Your task to perform on an android device: Open Amazon Image 0: 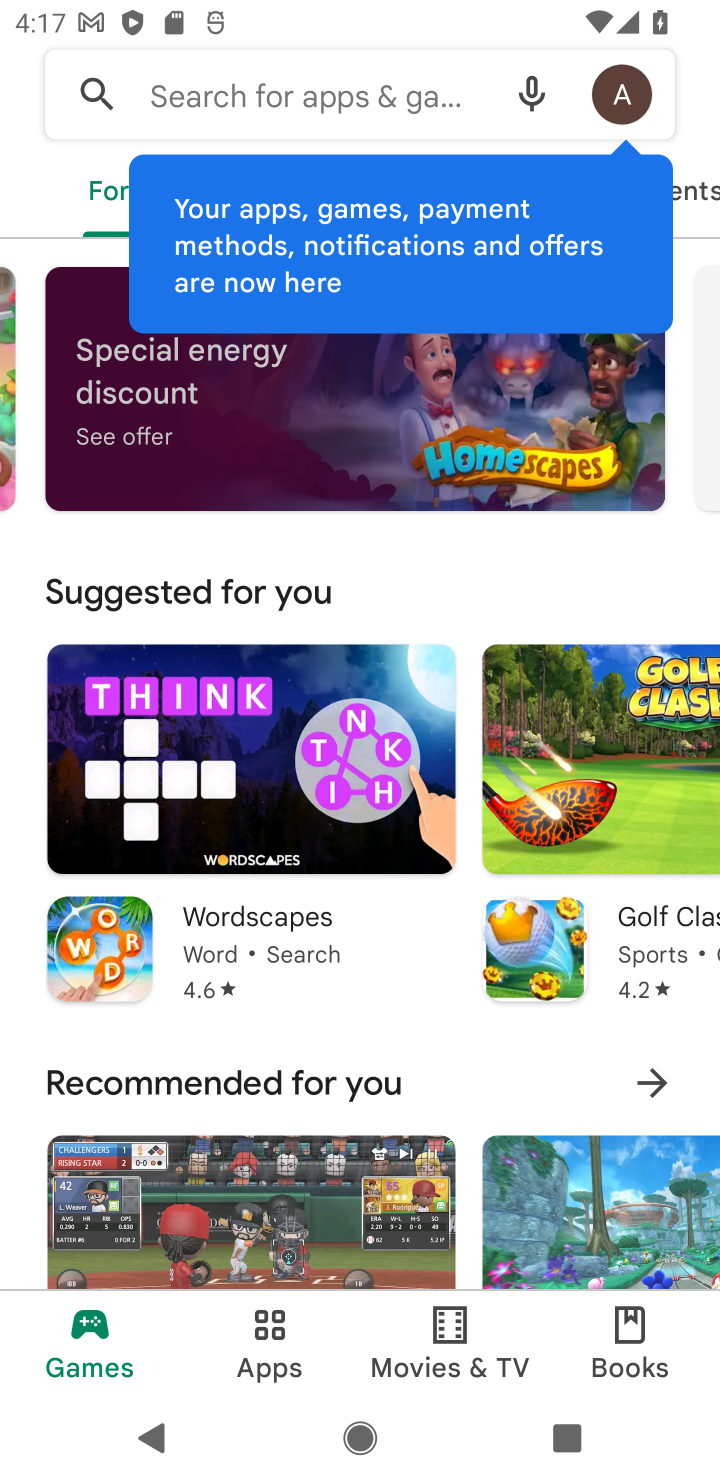
Step 0: press home button
Your task to perform on an android device: Open Amazon Image 1: 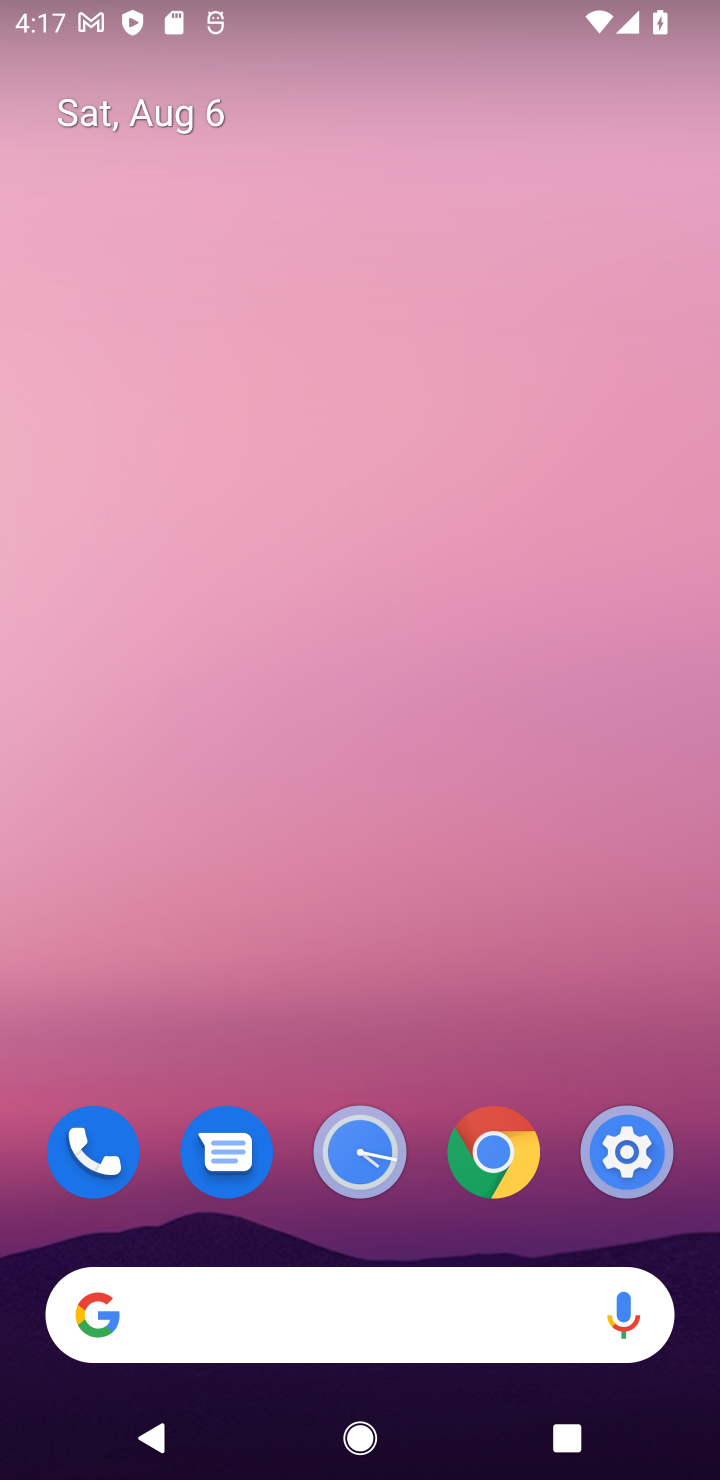
Step 1: drag from (581, 1207) to (643, 34)
Your task to perform on an android device: Open Amazon Image 2: 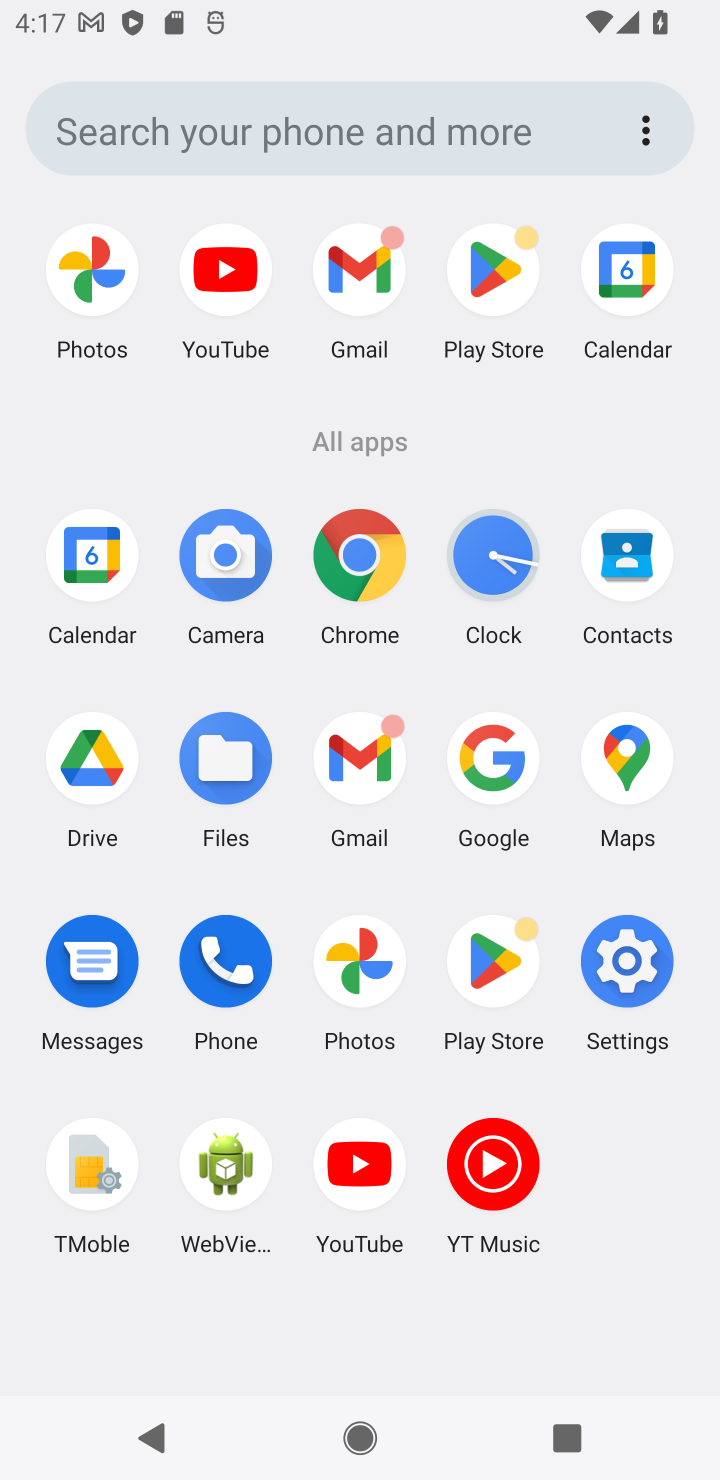
Step 2: click (351, 560)
Your task to perform on an android device: Open Amazon Image 3: 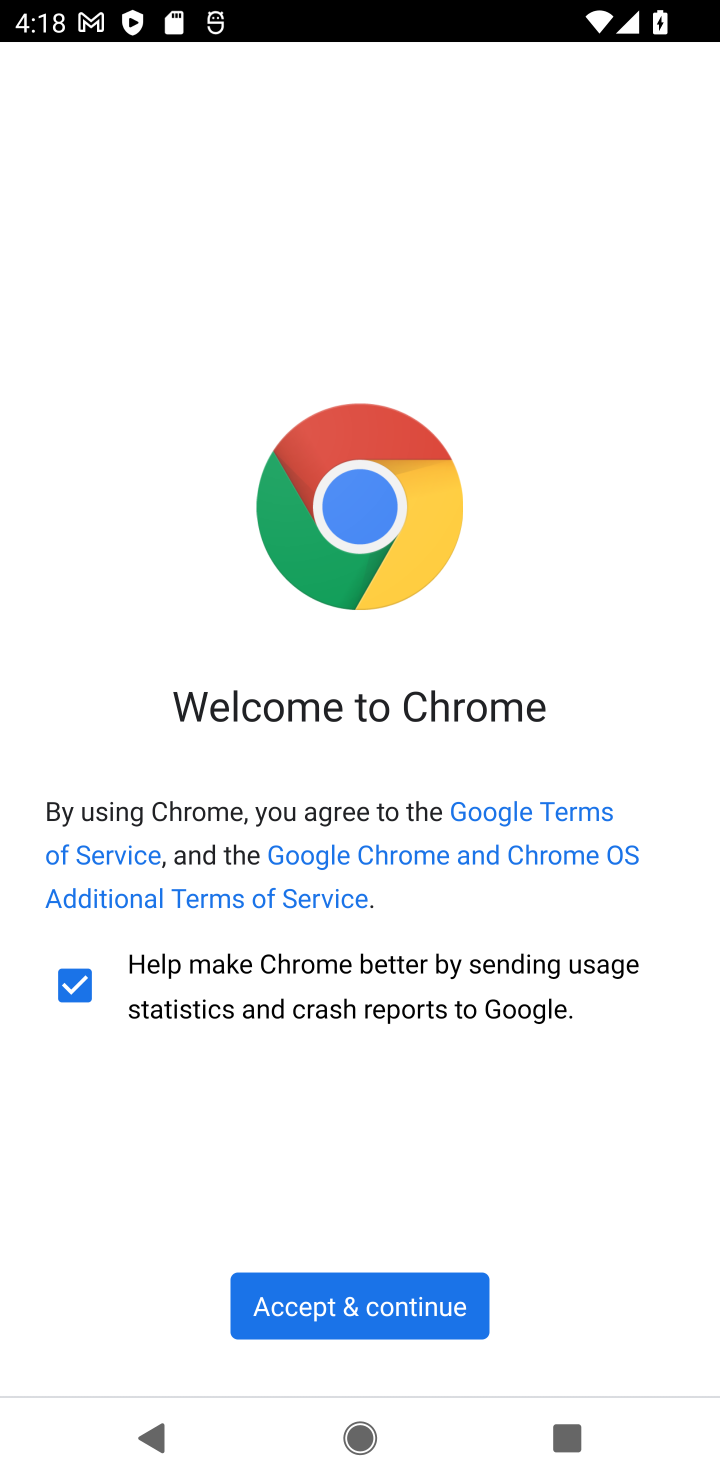
Step 3: click (350, 1303)
Your task to perform on an android device: Open Amazon Image 4: 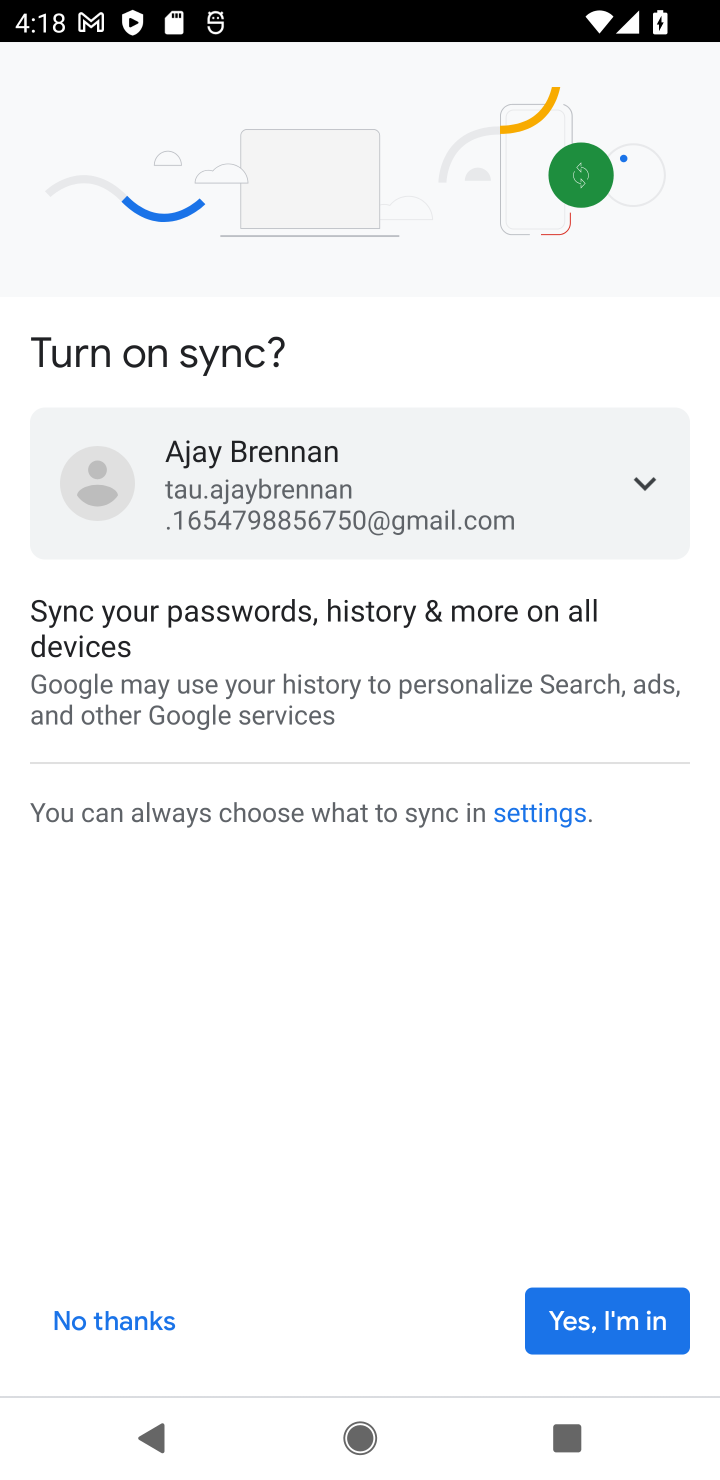
Step 4: click (617, 1345)
Your task to perform on an android device: Open Amazon Image 5: 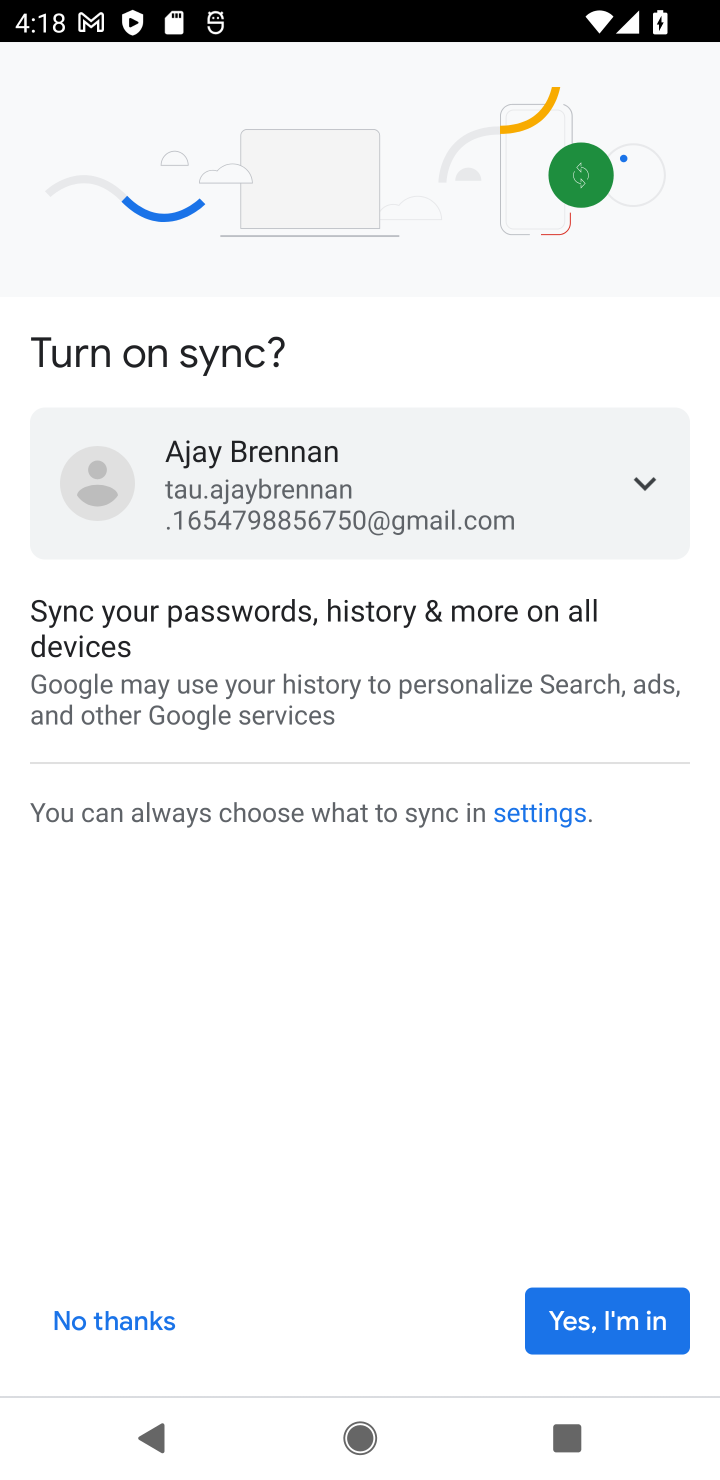
Step 5: click (617, 1345)
Your task to perform on an android device: Open Amazon Image 6: 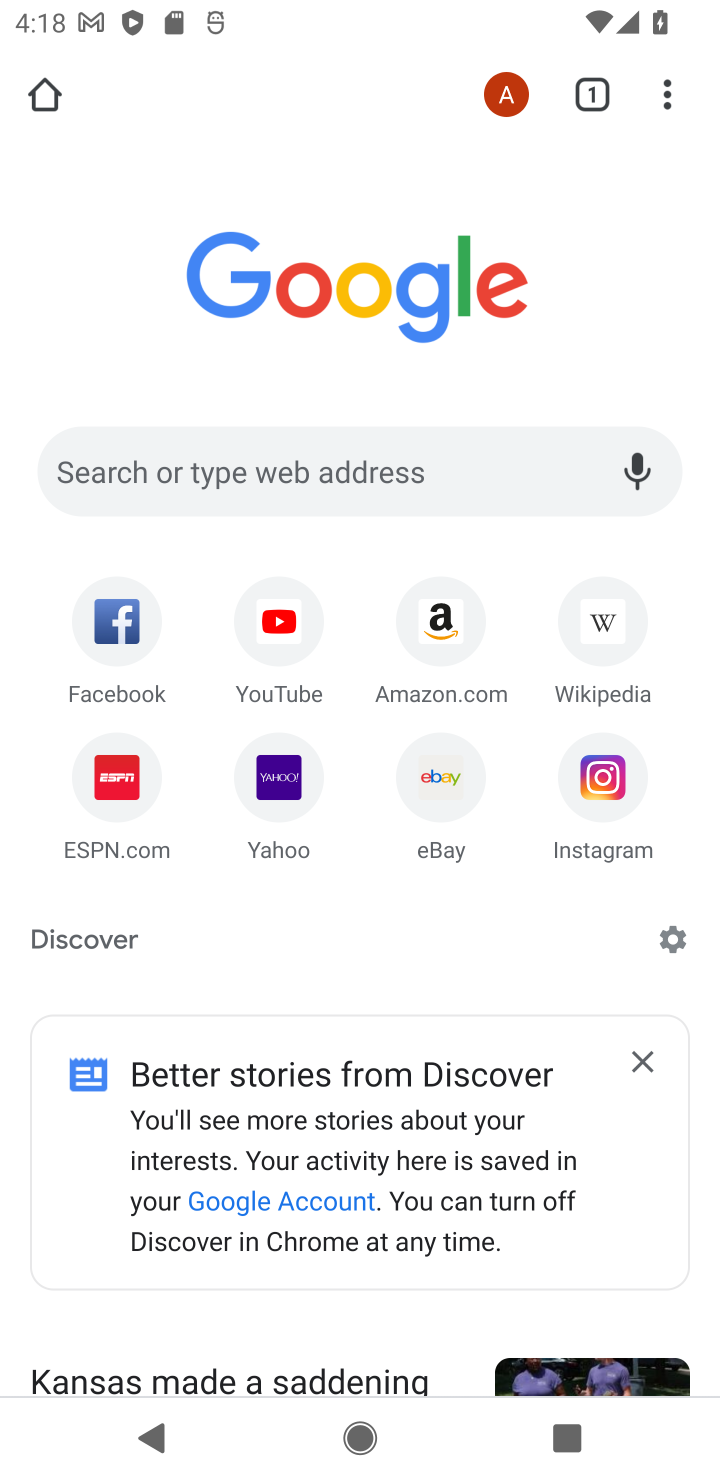
Step 6: click (442, 643)
Your task to perform on an android device: Open Amazon Image 7: 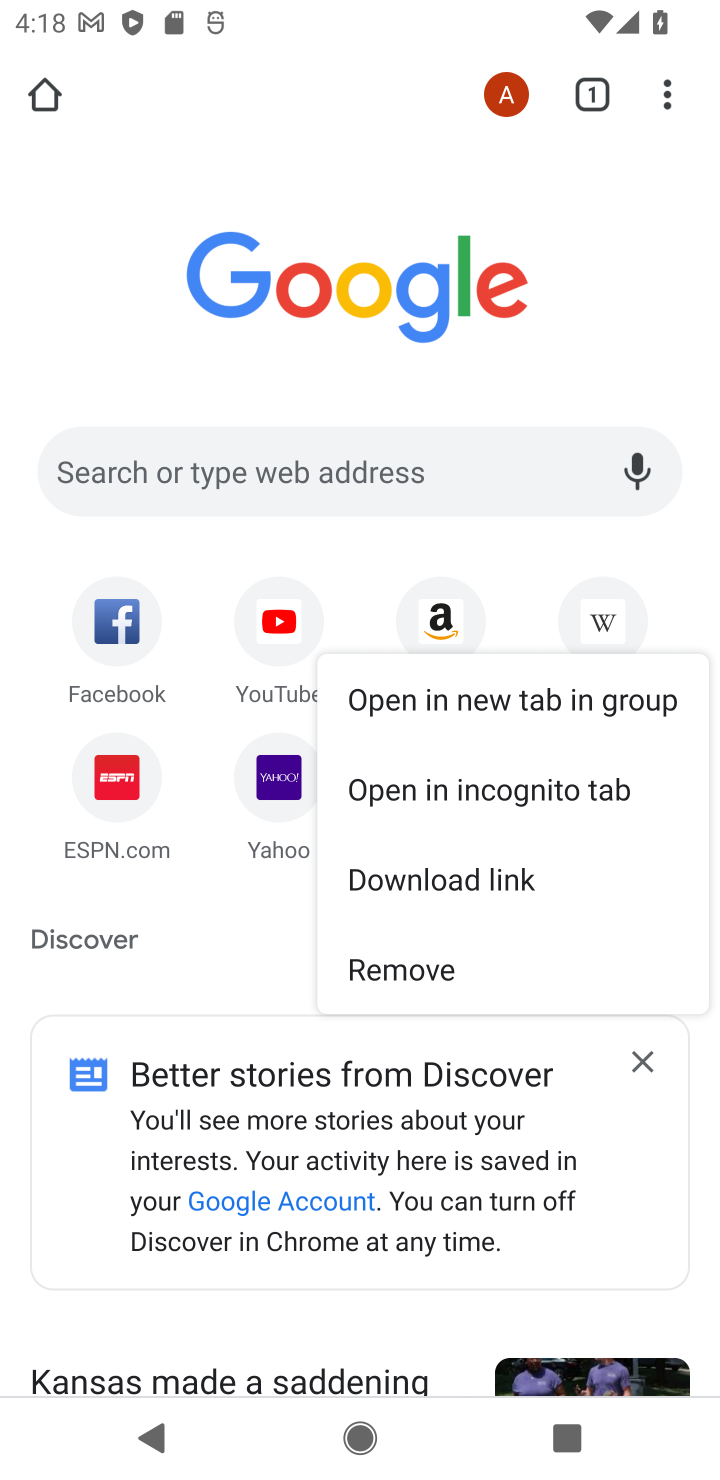
Step 7: click (464, 607)
Your task to perform on an android device: Open Amazon Image 8: 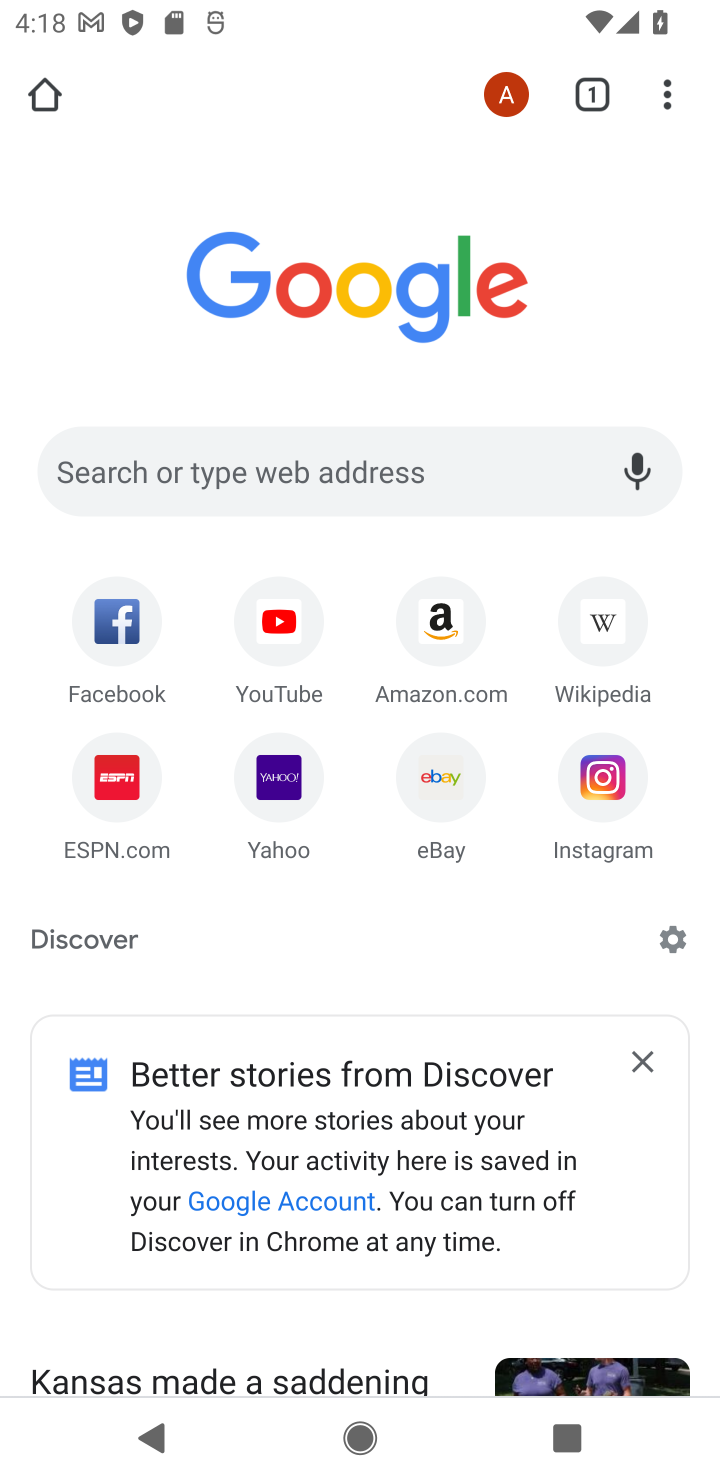
Step 8: click (429, 626)
Your task to perform on an android device: Open Amazon Image 9: 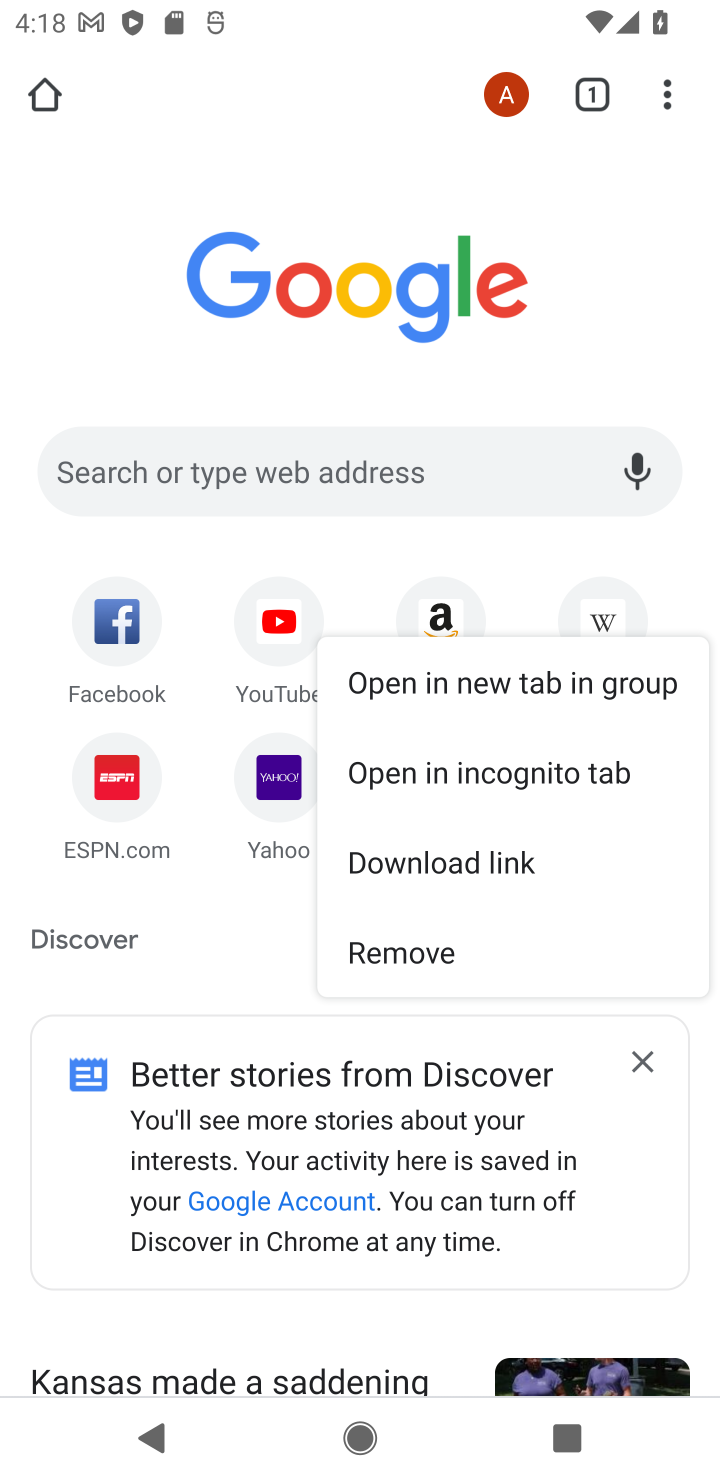
Step 9: click (449, 599)
Your task to perform on an android device: Open Amazon Image 10: 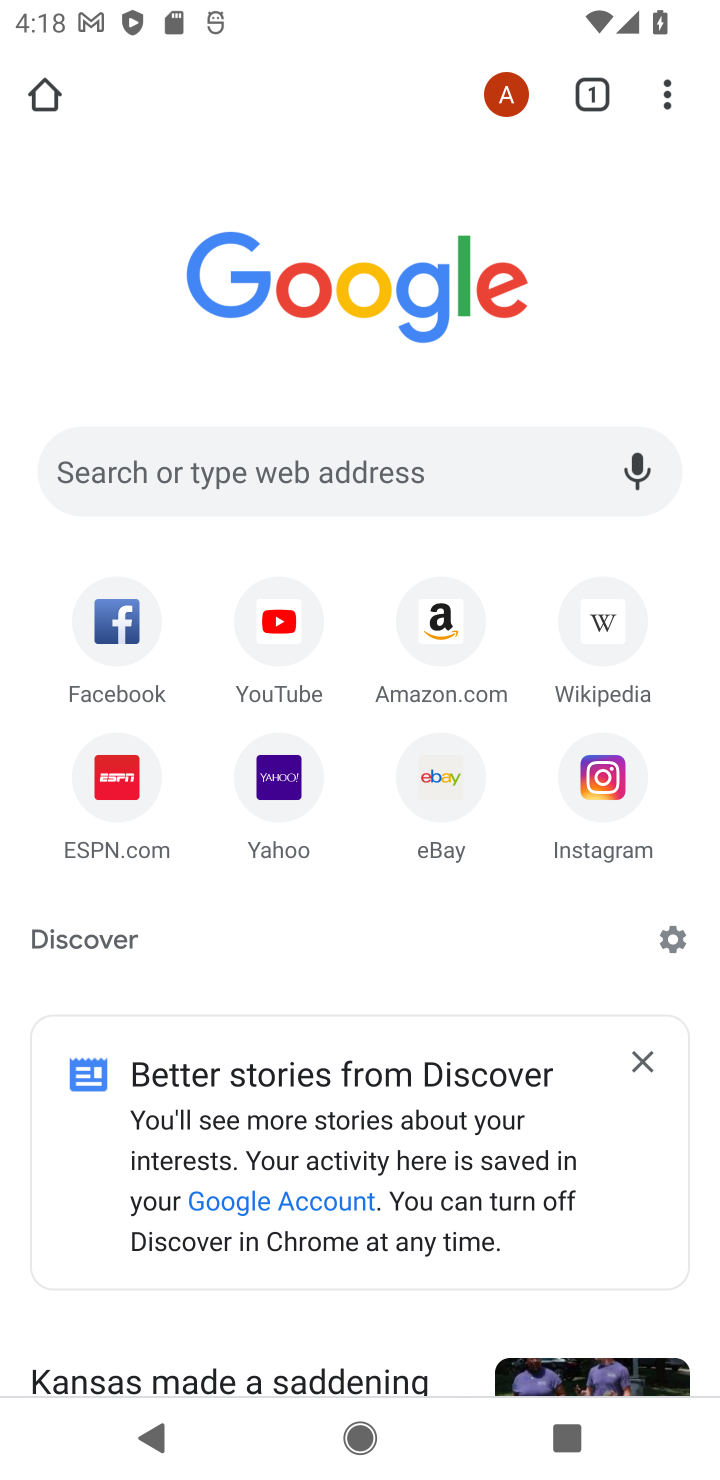
Step 10: click (427, 630)
Your task to perform on an android device: Open Amazon Image 11: 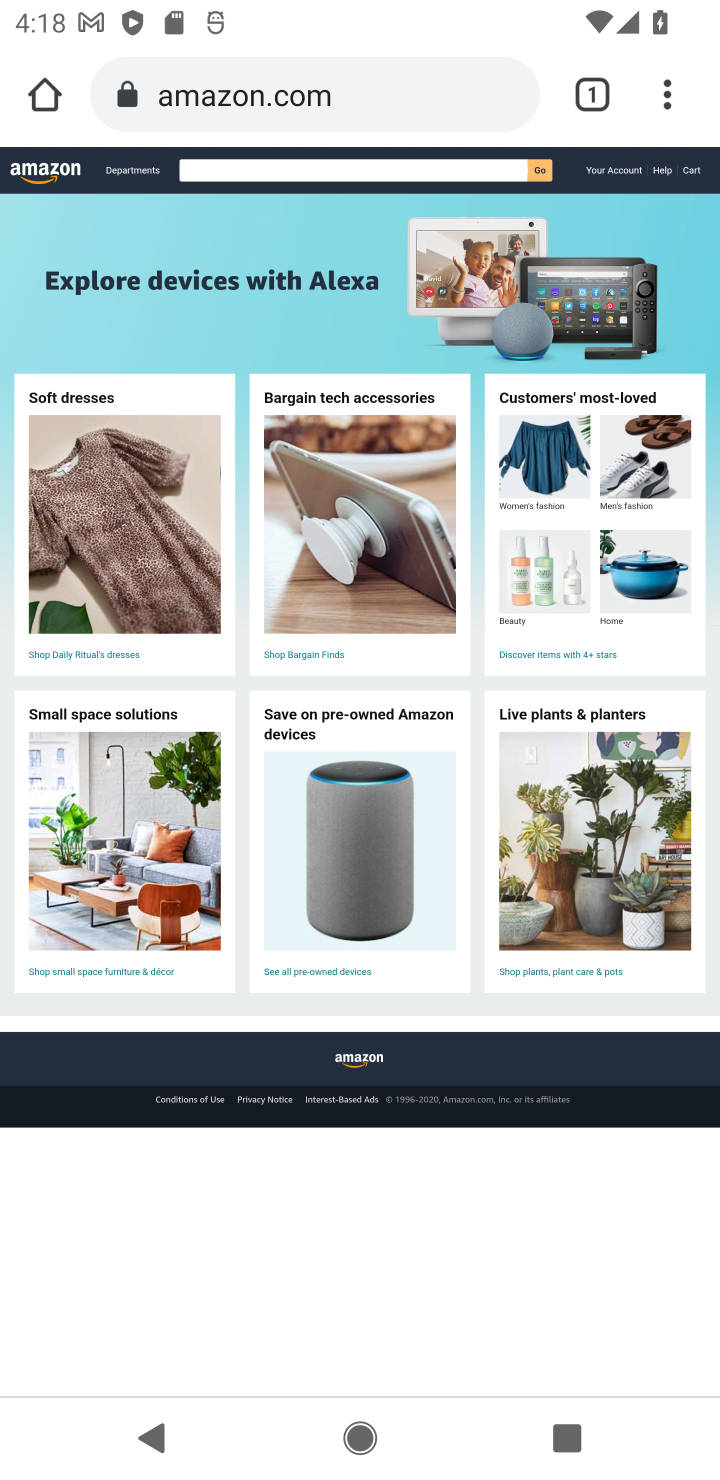
Step 11: task complete